Your task to perform on an android device: Show me popular videos on Youtube Image 0: 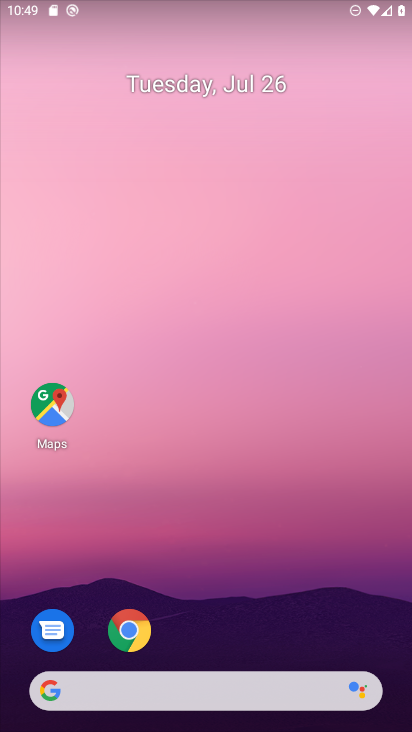
Step 0: drag from (392, 656) to (363, 165)
Your task to perform on an android device: Show me popular videos on Youtube Image 1: 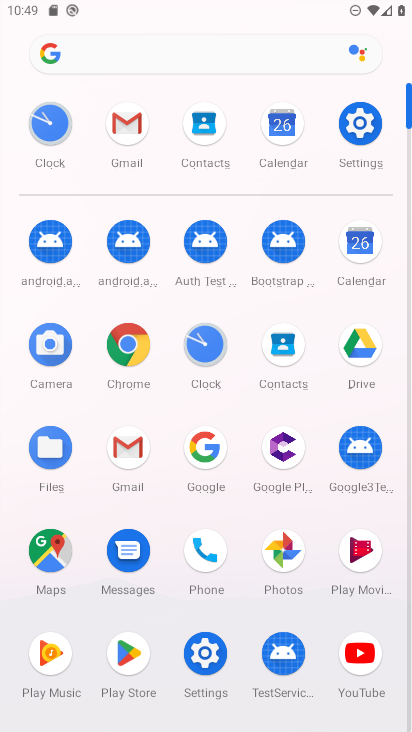
Step 1: click (361, 653)
Your task to perform on an android device: Show me popular videos on Youtube Image 2: 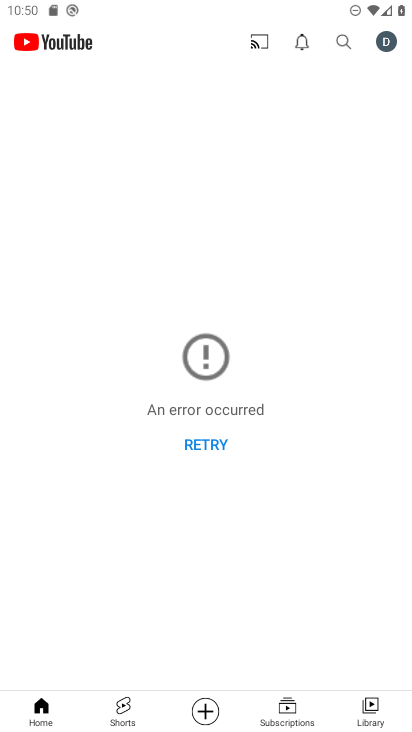
Step 2: click (201, 441)
Your task to perform on an android device: Show me popular videos on Youtube Image 3: 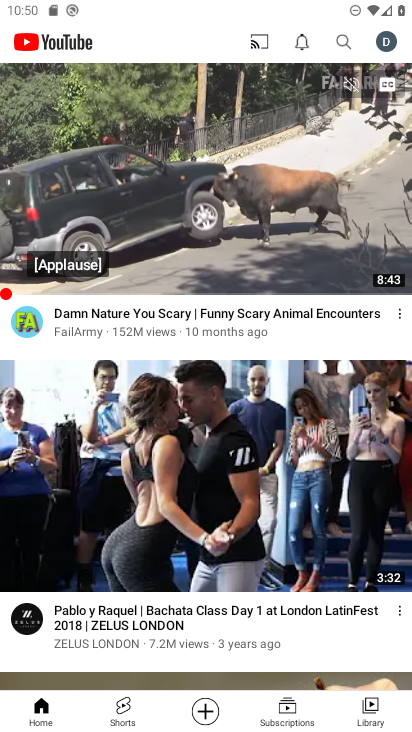
Step 3: task complete